Your task to perform on an android device: toggle sleep mode Image 0: 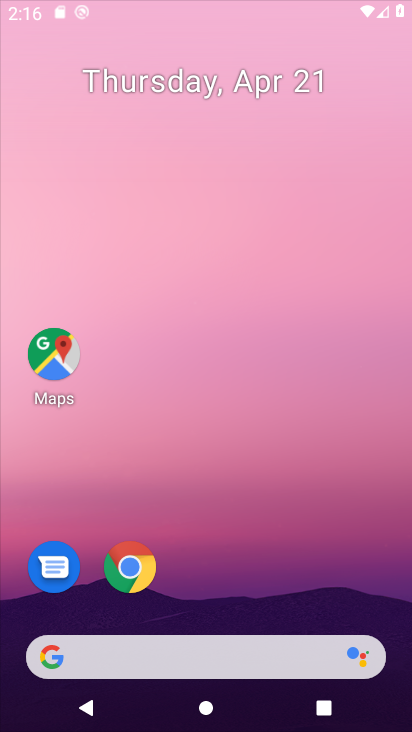
Step 0: drag from (313, 504) to (253, 88)
Your task to perform on an android device: toggle sleep mode Image 1: 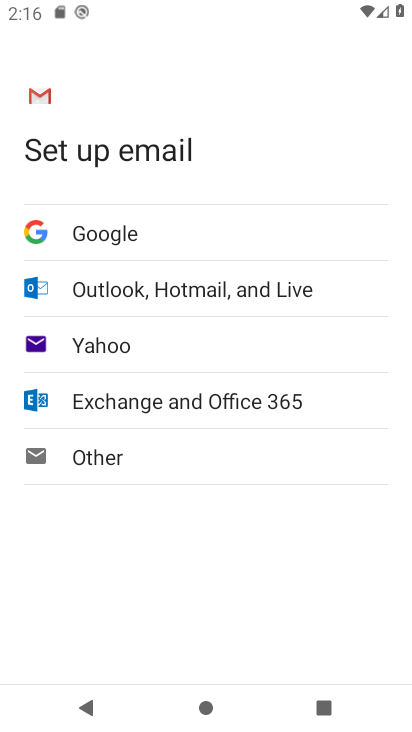
Step 1: press back button
Your task to perform on an android device: toggle sleep mode Image 2: 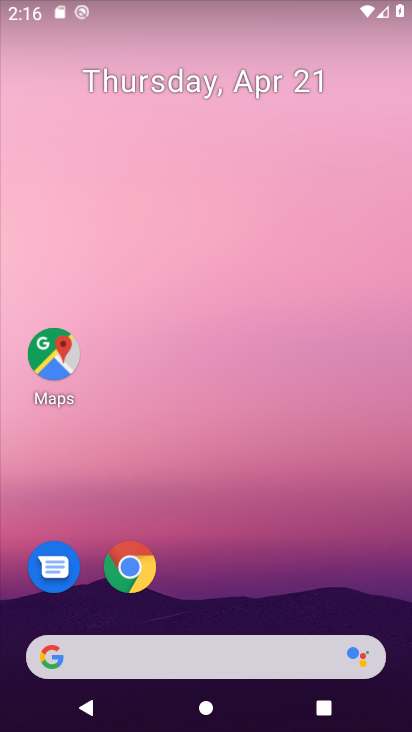
Step 2: drag from (312, 516) to (286, 36)
Your task to perform on an android device: toggle sleep mode Image 3: 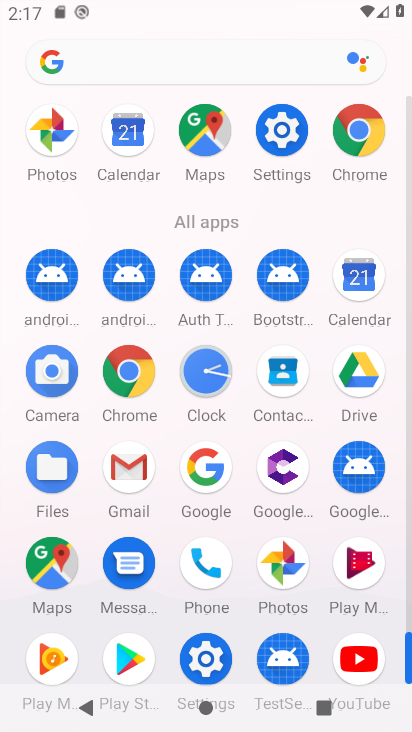
Step 3: click (206, 659)
Your task to perform on an android device: toggle sleep mode Image 4: 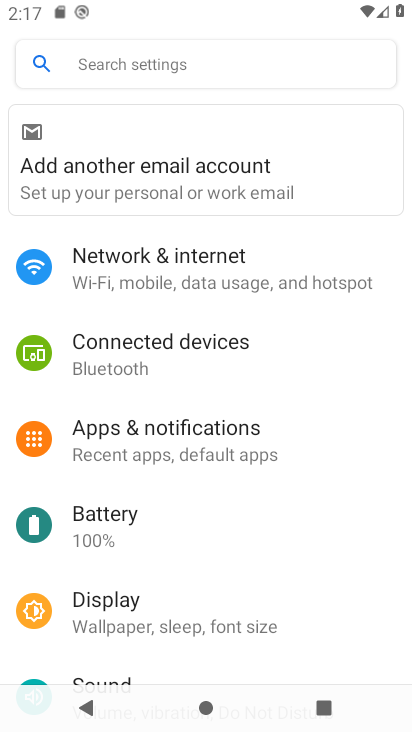
Step 4: click (196, 598)
Your task to perform on an android device: toggle sleep mode Image 5: 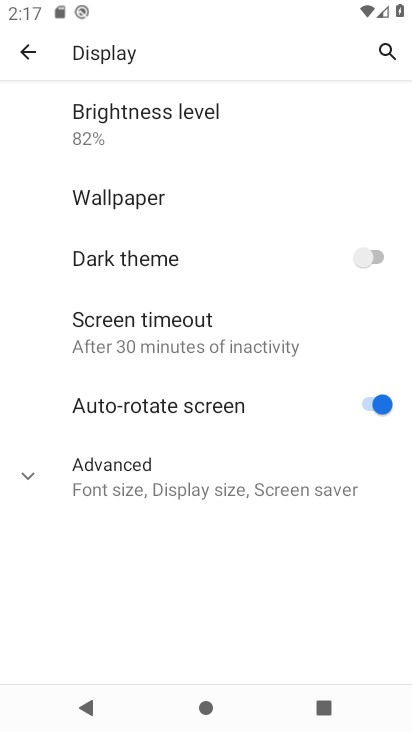
Step 5: click (35, 466)
Your task to perform on an android device: toggle sleep mode Image 6: 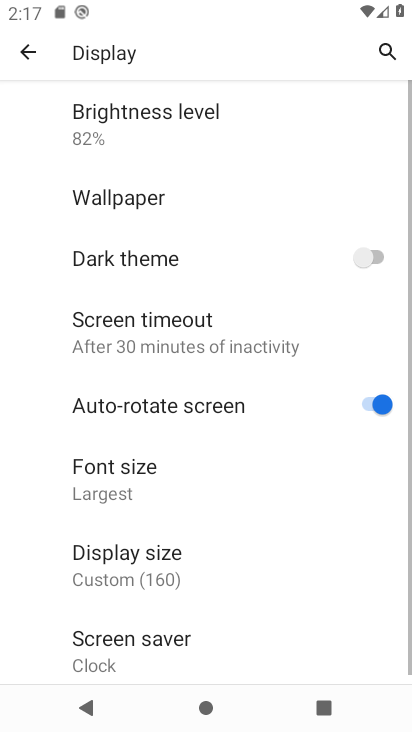
Step 6: task complete